Your task to perform on an android device: toggle improve location accuracy Image 0: 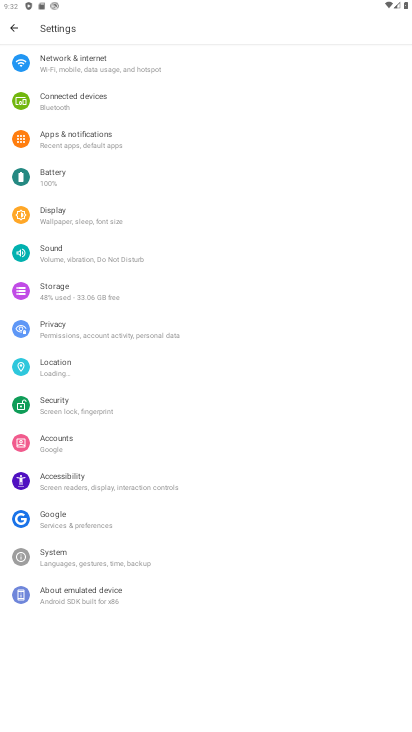
Step 0: press home button
Your task to perform on an android device: toggle improve location accuracy Image 1: 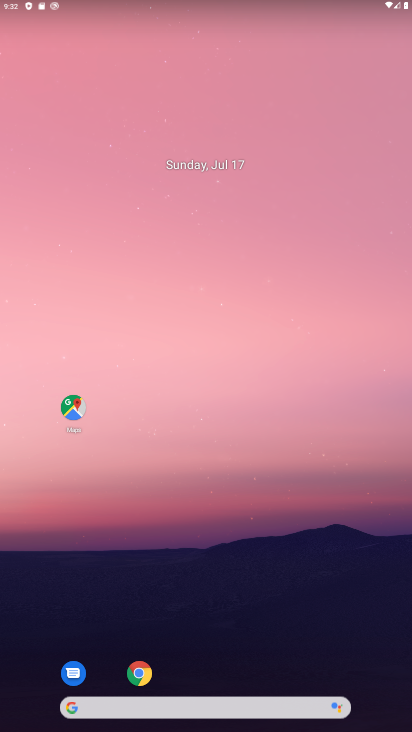
Step 1: drag from (229, 638) to (225, 101)
Your task to perform on an android device: toggle improve location accuracy Image 2: 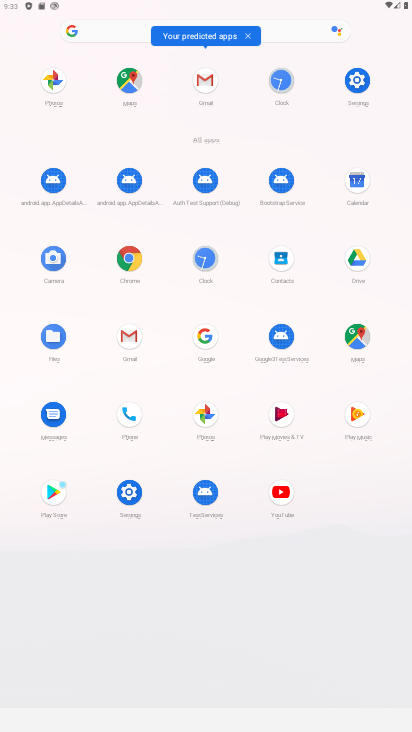
Step 2: click (360, 81)
Your task to perform on an android device: toggle improve location accuracy Image 3: 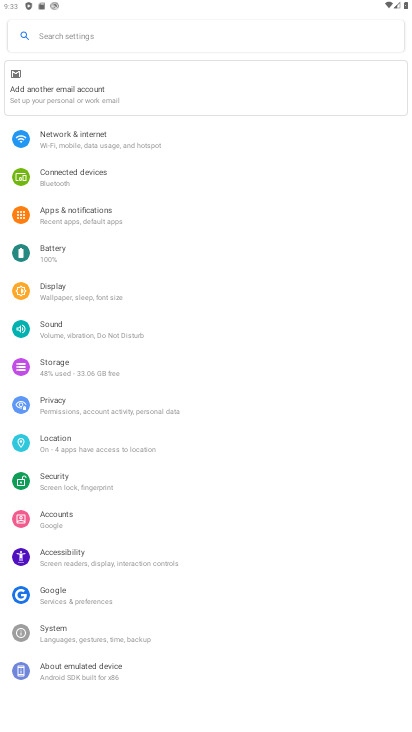
Step 3: click (98, 443)
Your task to perform on an android device: toggle improve location accuracy Image 4: 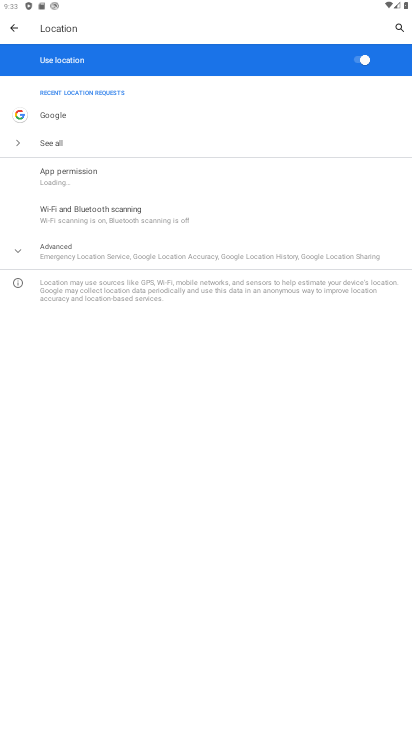
Step 4: click (52, 253)
Your task to perform on an android device: toggle improve location accuracy Image 5: 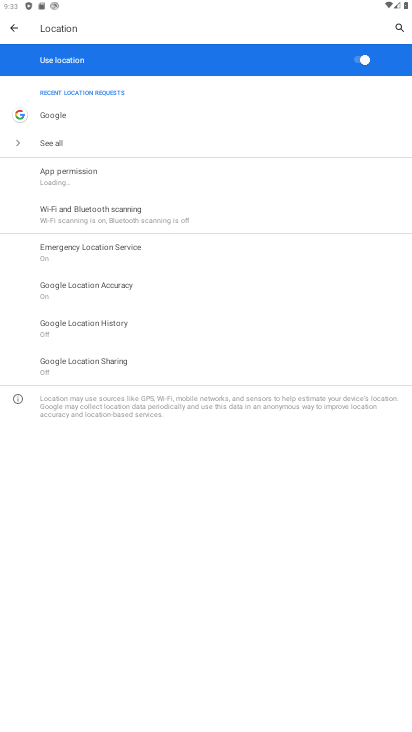
Step 5: click (74, 276)
Your task to perform on an android device: toggle improve location accuracy Image 6: 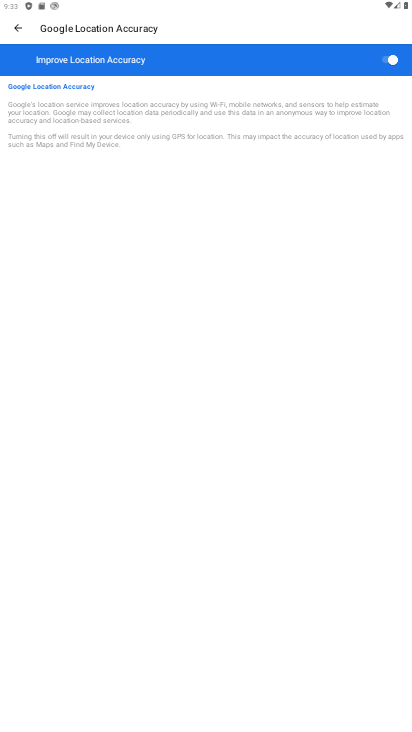
Step 6: click (391, 63)
Your task to perform on an android device: toggle improve location accuracy Image 7: 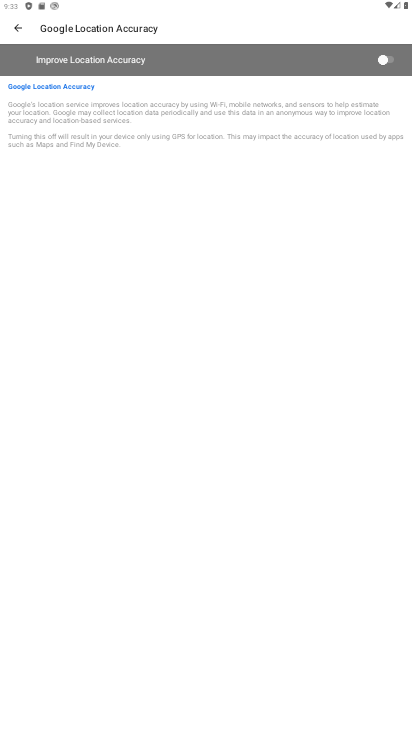
Step 7: task complete